Your task to perform on an android device: Open location settings Image 0: 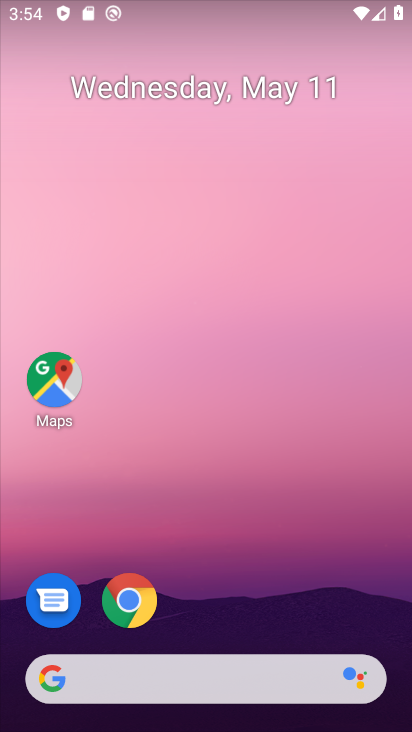
Step 0: drag from (206, 650) to (324, 125)
Your task to perform on an android device: Open location settings Image 1: 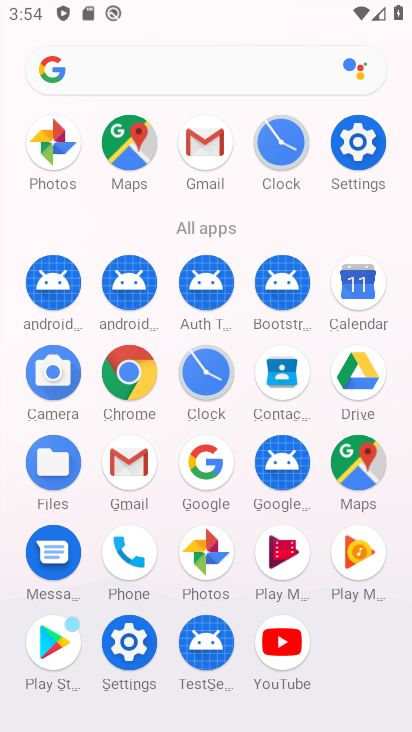
Step 1: click (113, 648)
Your task to perform on an android device: Open location settings Image 2: 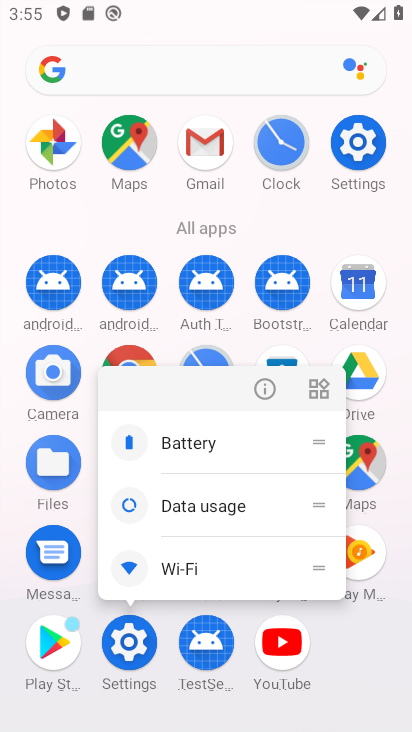
Step 2: click (123, 644)
Your task to perform on an android device: Open location settings Image 3: 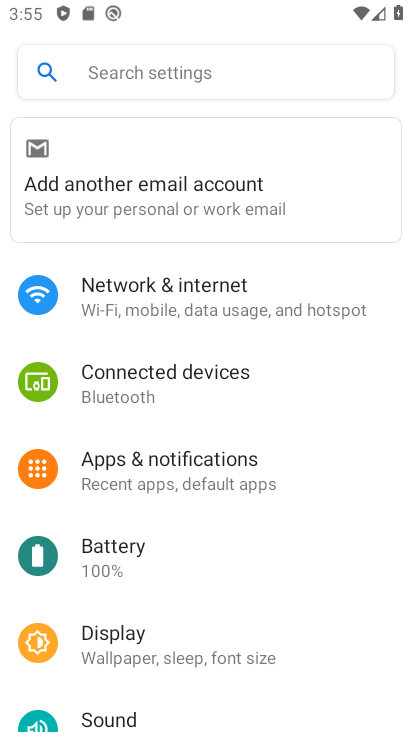
Step 3: drag from (138, 687) to (291, 266)
Your task to perform on an android device: Open location settings Image 4: 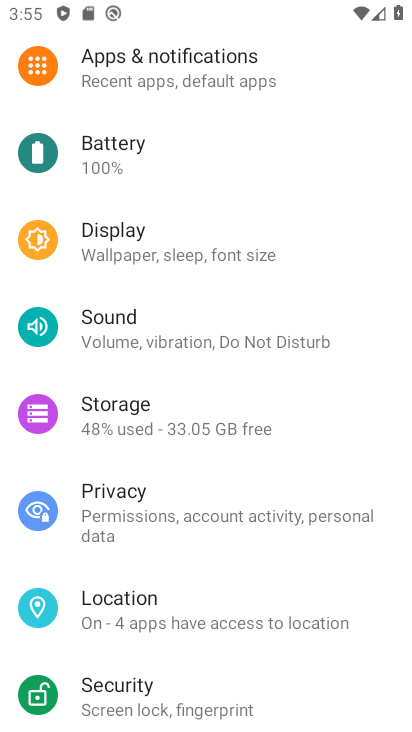
Step 4: drag from (178, 626) to (352, 194)
Your task to perform on an android device: Open location settings Image 5: 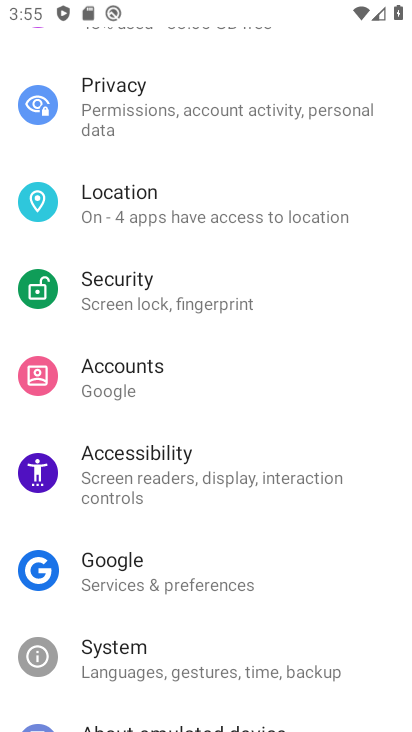
Step 5: click (179, 226)
Your task to perform on an android device: Open location settings Image 6: 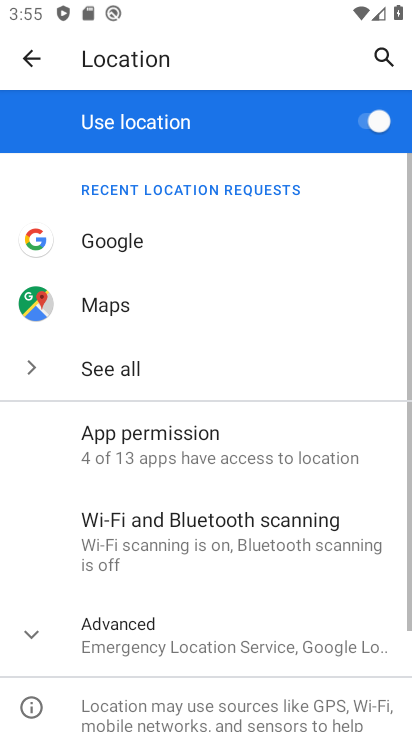
Step 6: task complete